Your task to perform on an android device: Go to Google maps Image 0: 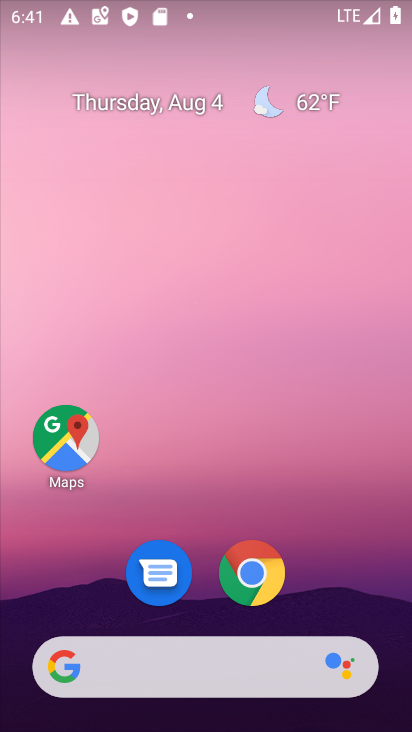
Step 0: press home button
Your task to perform on an android device: Go to Google maps Image 1: 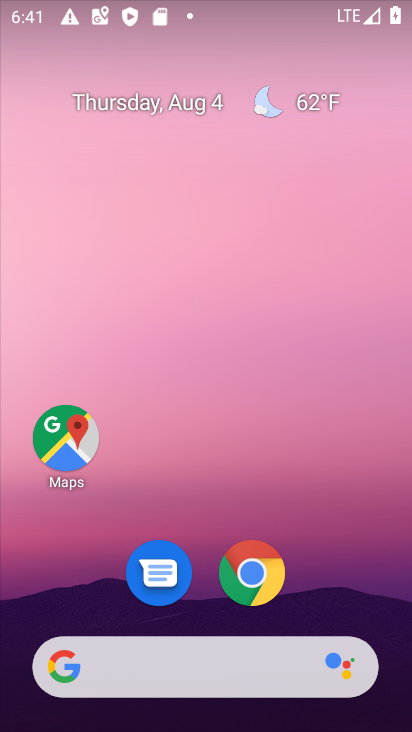
Step 1: click (68, 439)
Your task to perform on an android device: Go to Google maps Image 2: 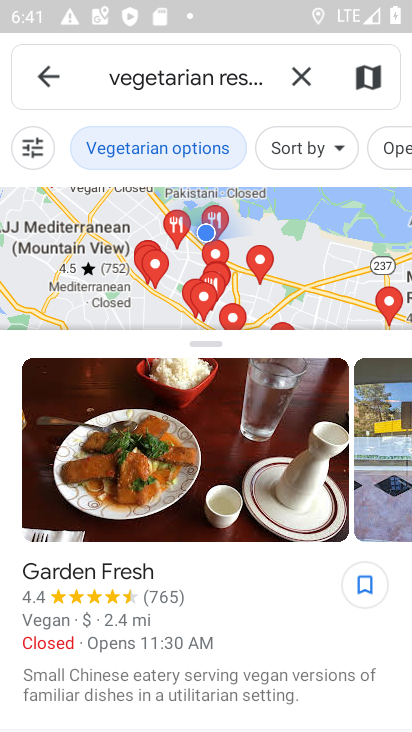
Step 2: click (43, 72)
Your task to perform on an android device: Go to Google maps Image 3: 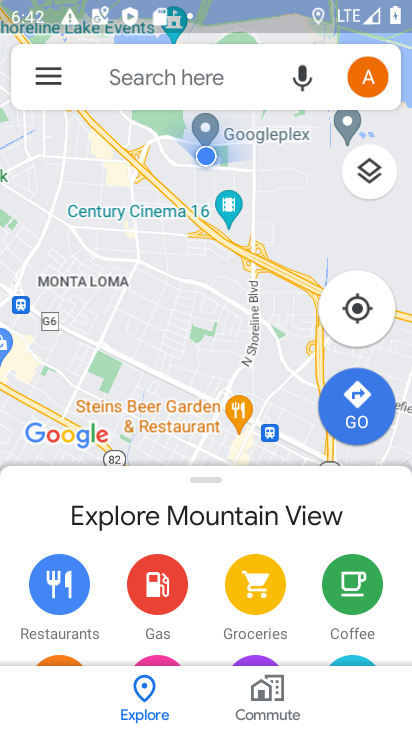
Step 3: task complete